Your task to perform on an android device: Open Google Maps and go to "Timeline" Image 0: 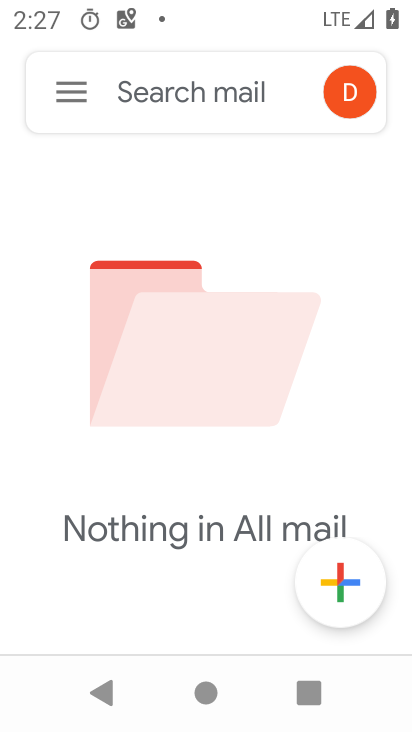
Step 0: press home button
Your task to perform on an android device: Open Google Maps and go to "Timeline" Image 1: 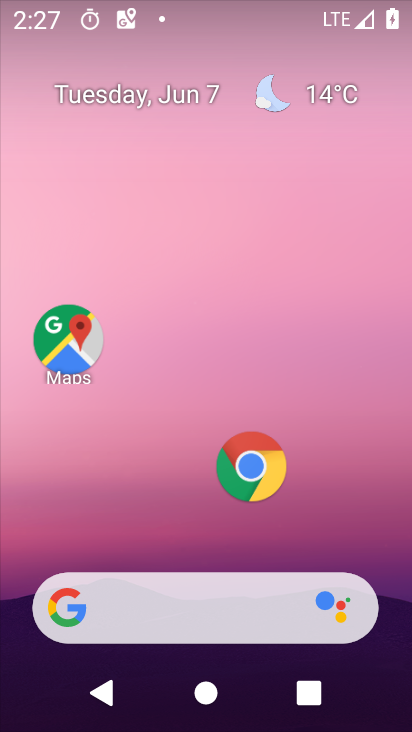
Step 1: click (67, 337)
Your task to perform on an android device: Open Google Maps and go to "Timeline" Image 2: 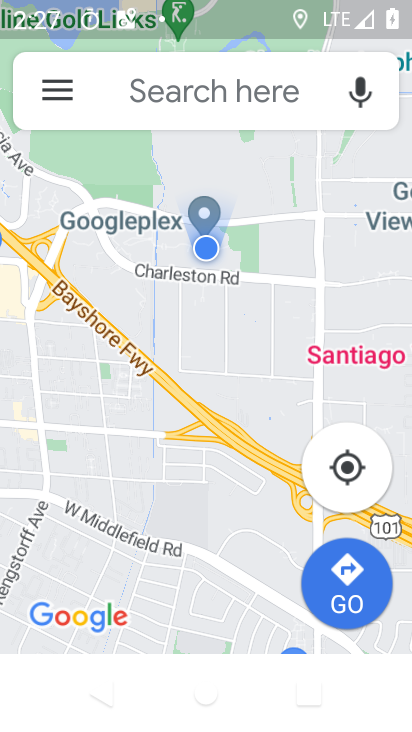
Step 2: click (59, 91)
Your task to perform on an android device: Open Google Maps and go to "Timeline" Image 3: 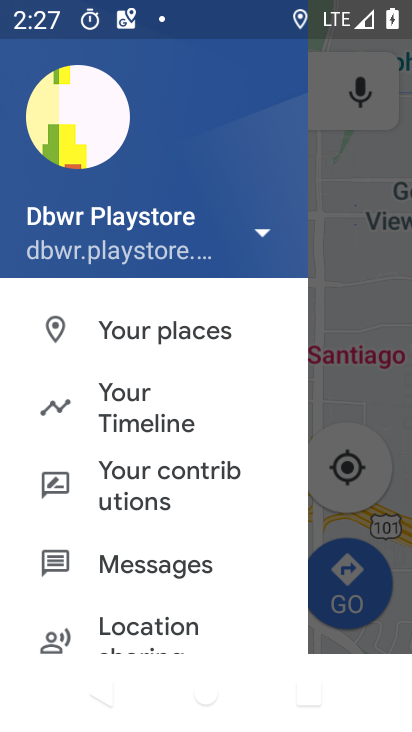
Step 3: click (113, 426)
Your task to perform on an android device: Open Google Maps and go to "Timeline" Image 4: 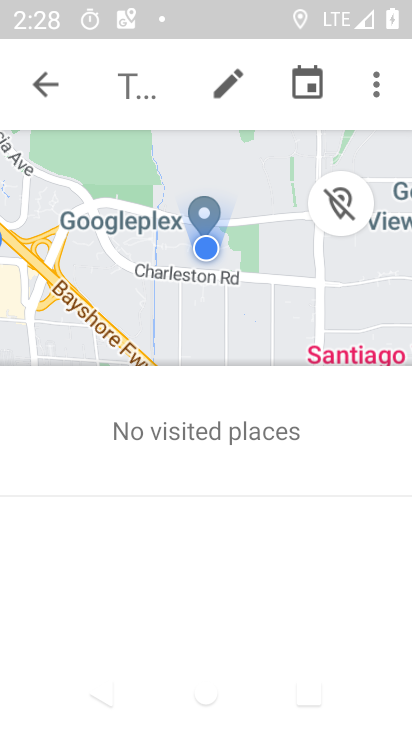
Step 4: task complete